Your task to perform on an android device: Do I have any events this weekend? Image 0: 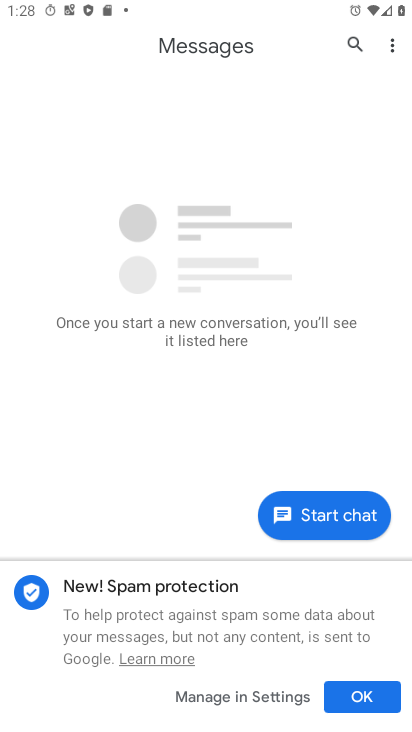
Step 0: press home button
Your task to perform on an android device: Do I have any events this weekend? Image 1: 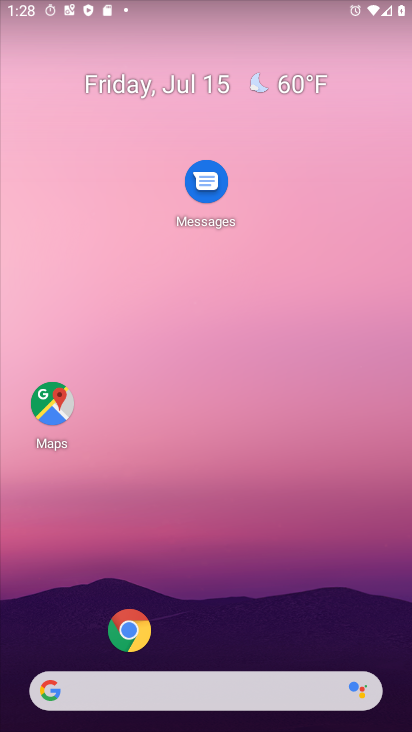
Step 1: drag from (32, 685) to (323, 168)
Your task to perform on an android device: Do I have any events this weekend? Image 2: 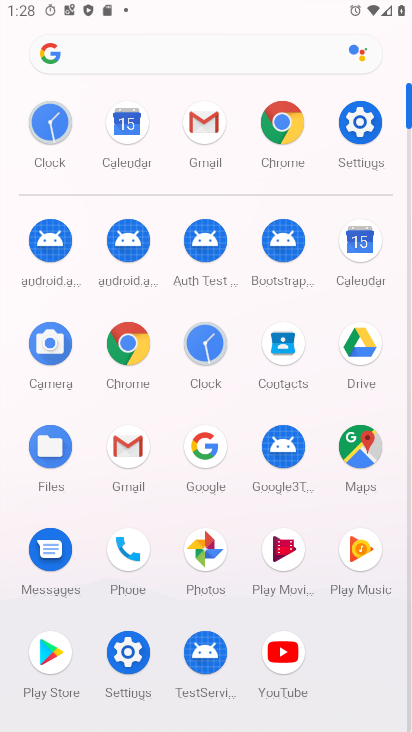
Step 2: click (349, 253)
Your task to perform on an android device: Do I have any events this weekend? Image 3: 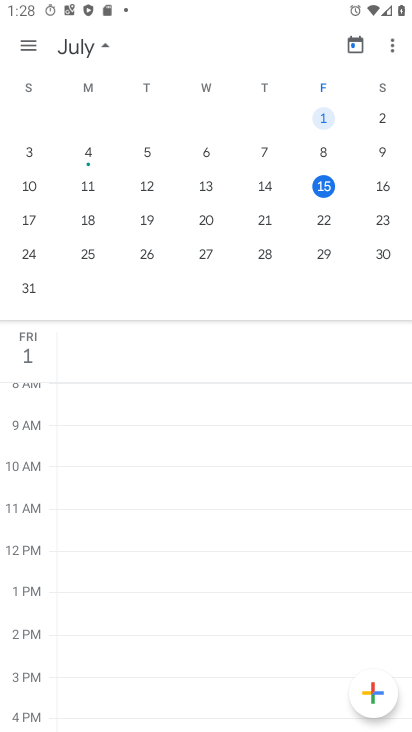
Step 3: click (31, 49)
Your task to perform on an android device: Do I have any events this weekend? Image 4: 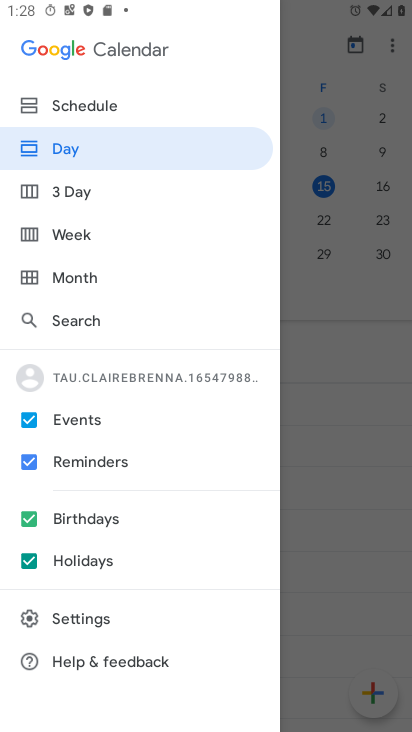
Step 4: task complete